Your task to perform on an android device: search for starred emails in the gmail app Image 0: 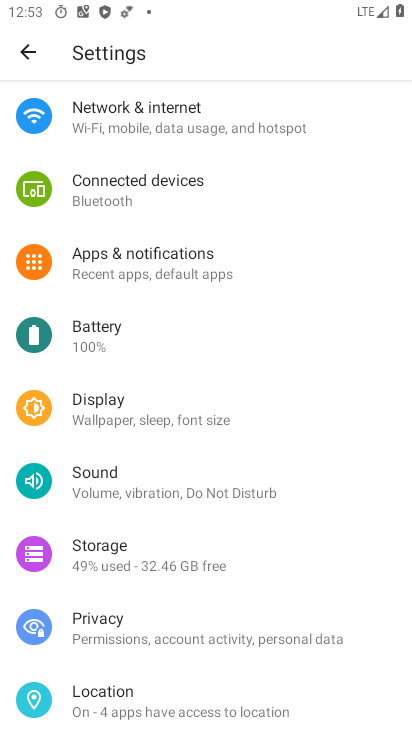
Step 0: press home button
Your task to perform on an android device: search for starred emails in the gmail app Image 1: 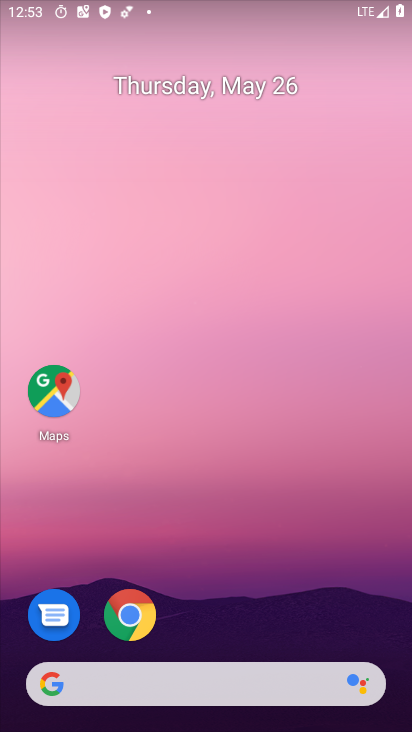
Step 1: drag from (267, 644) to (208, 208)
Your task to perform on an android device: search for starred emails in the gmail app Image 2: 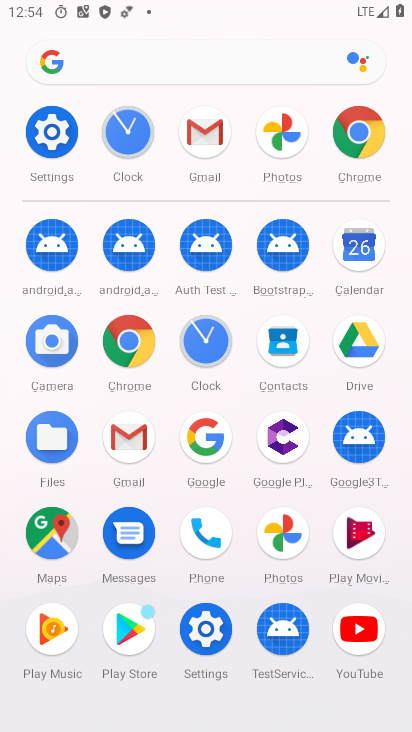
Step 2: click (210, 139)
Your task to perform on an android device: search for starred emails in the gmail app Image 3: 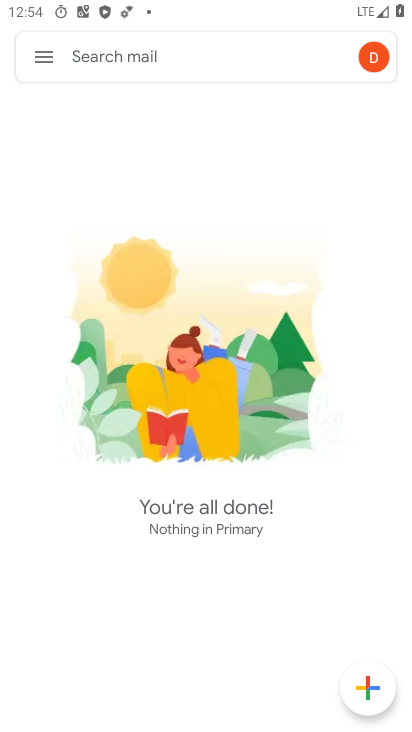
Step 3: click (46, 63)
Your task to perform on an android device: search for starred emails in the gmail app Image 4: 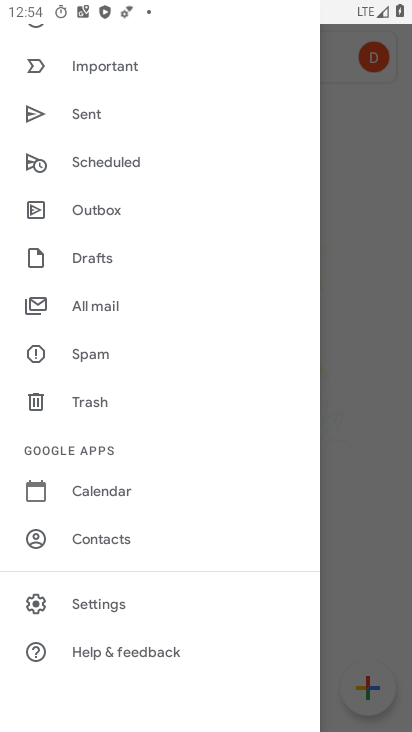
Step 4: drag from (140, 115) to (149, 427)
Your task to perform on an android device: search for starred emails in the gmail app Image 5: 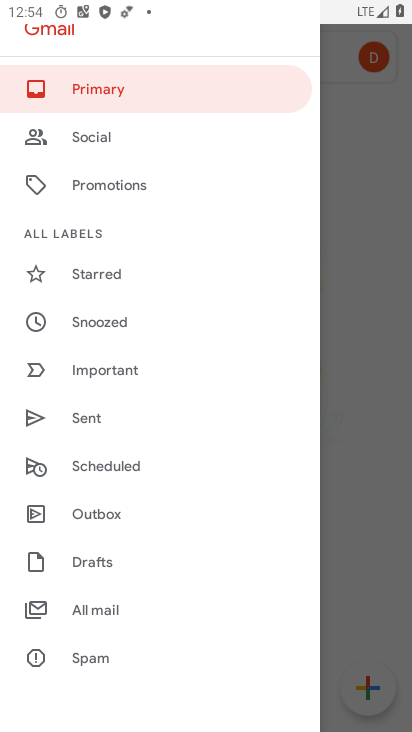
Step 5: click (119, 276)
Your task to perform on an android device: search for starred emails in the gmail app Image 6: 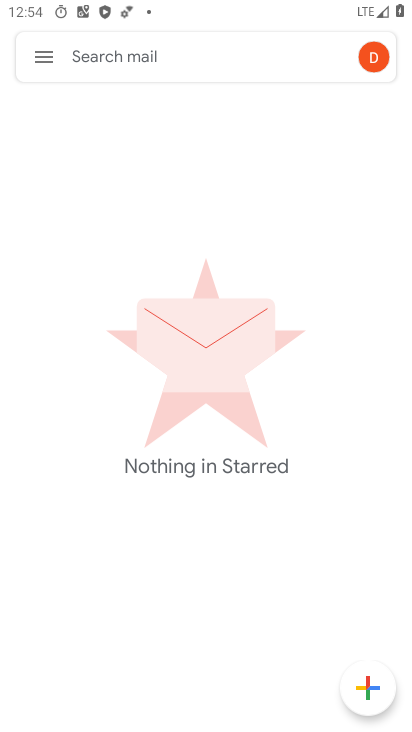
Step 6: task complete